Your task to perform on an android device: Open Google Chrome and open the bookmarks view Image 0: 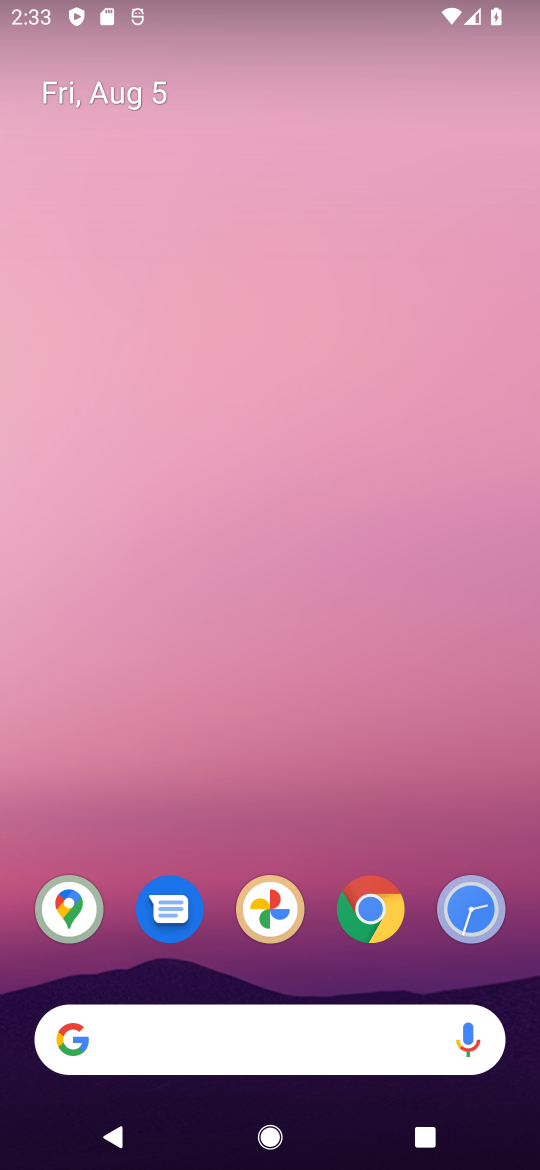
Step 0: click (367, 905)
Your task to perform on an android device: Open Google Chrome and open the bookmarks view Image 1: 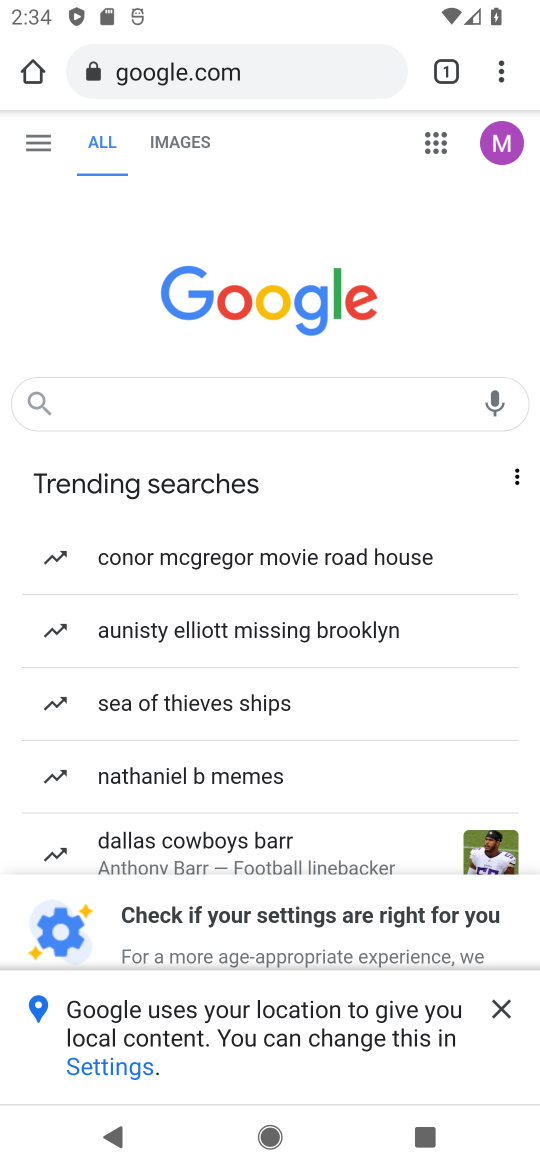
Step 1: click (514, 73)
Your task to perform on an android device: Open Google Chrome and open the bookmarks view Image 2: 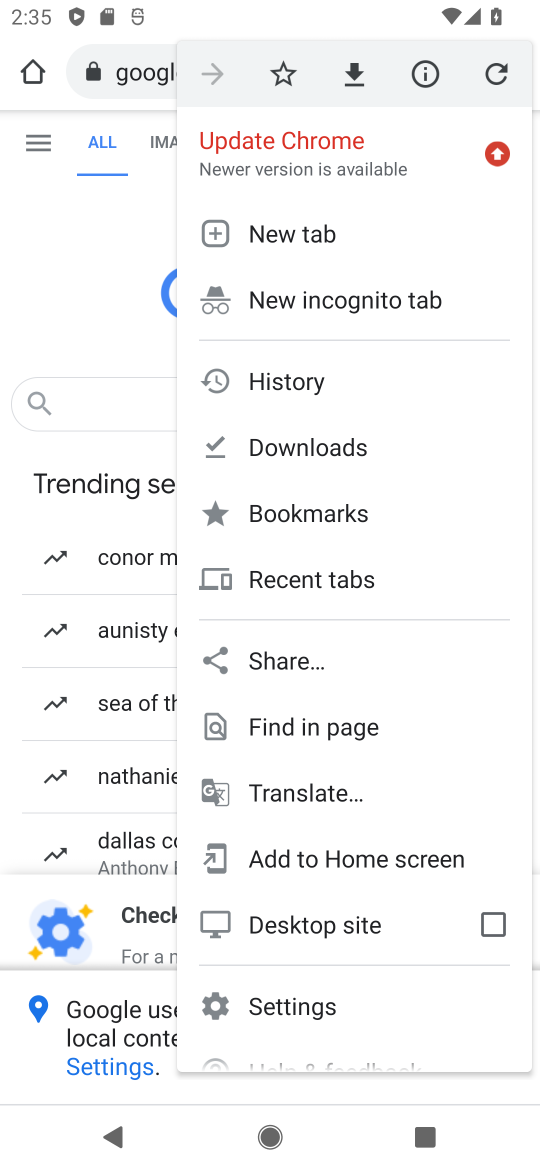
Step 2: task complete